Your task to perform on an android device: Go to Google maps Image 0: 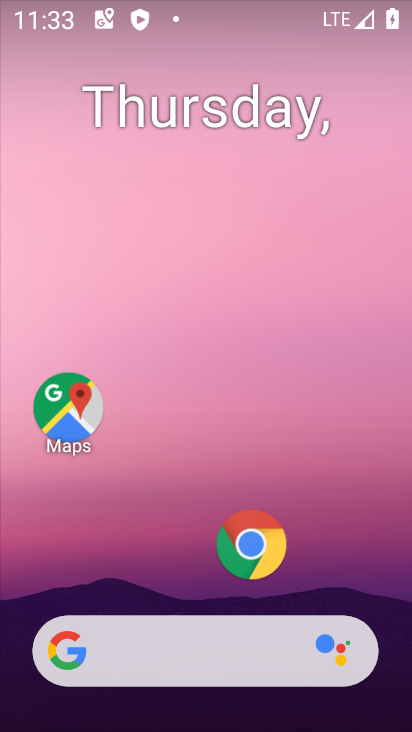
Step 0: click (59, 425)
Your task to perform on an android device: Go to Google maps Image 1: 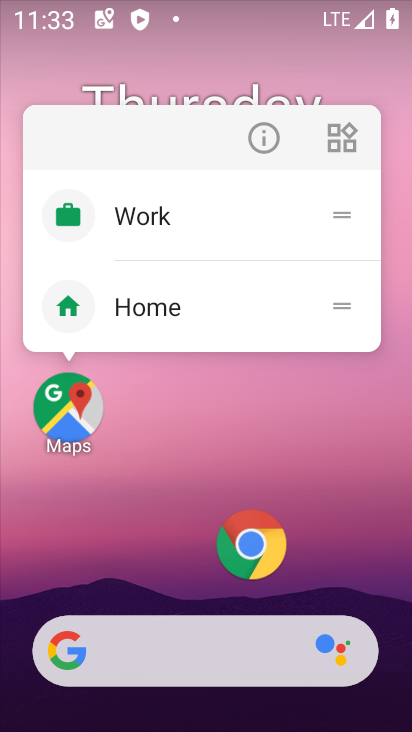
Step 1: click (94, 422)
Your task to perform on an android device: Go to Google maps Image 2: 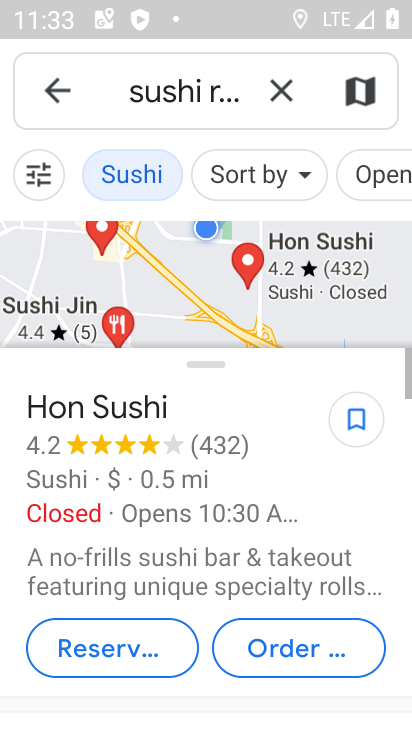
Step 2: click (63, 89)
Your task to perform on an android device: Go to Google maps Image 3: 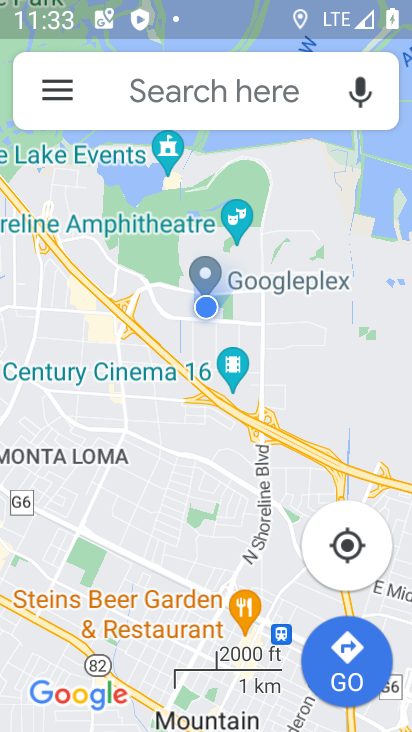
Step 3: click (67, 82)
Your task to perform on an android device: Go to Google maps Image 4: 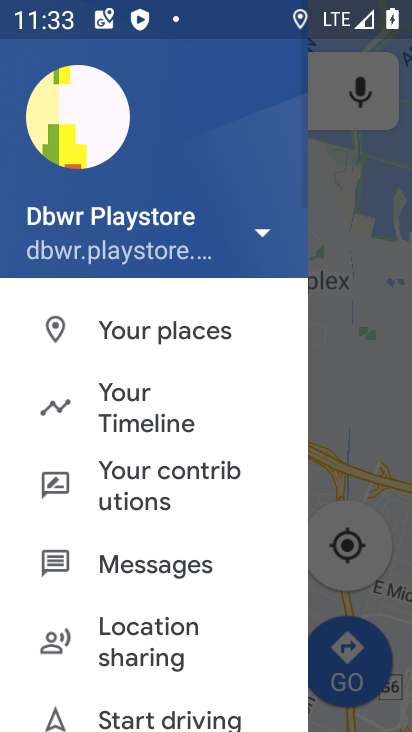
Step 4: click (342, 295)
Your task to perform on an android device: Go to Google maps Image 5: 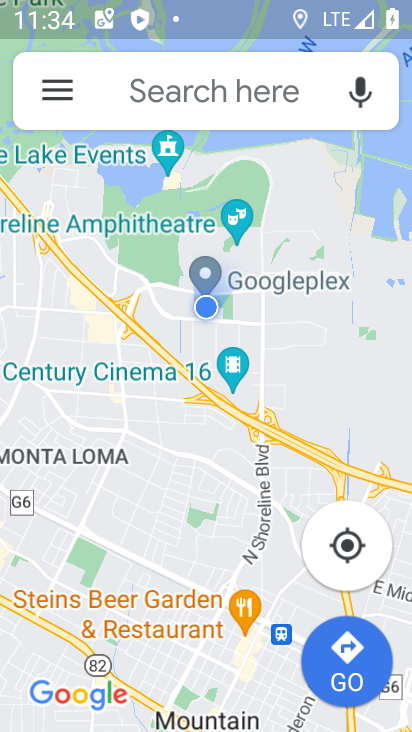
Step 5: task complete